Your task to perform on an android device: Search for pizza restaurants on Maps Image 0: 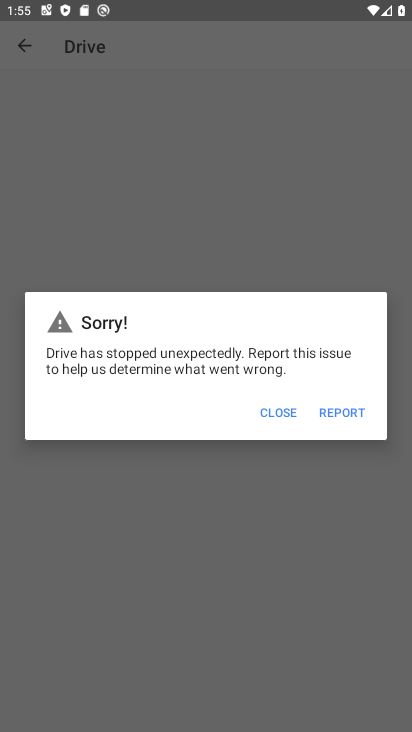
Step 0: press home button
Your task to perform on an android device: Search for pizza restaurants on Maps Image 1: 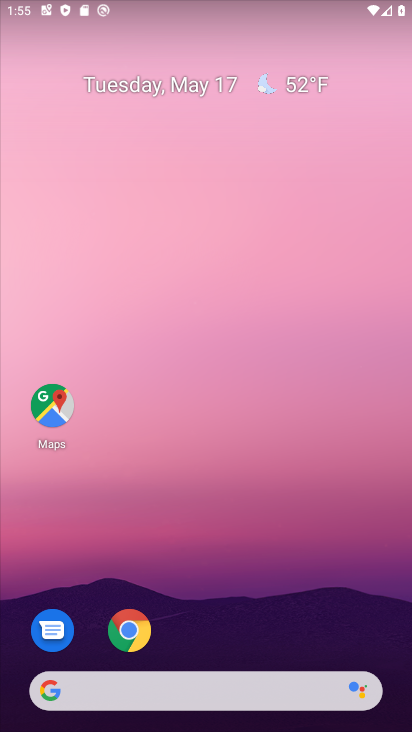
Step 1: click (37, 404)
Your task to perform on an android device: Search for pizza restaurants on Maps Image 2: 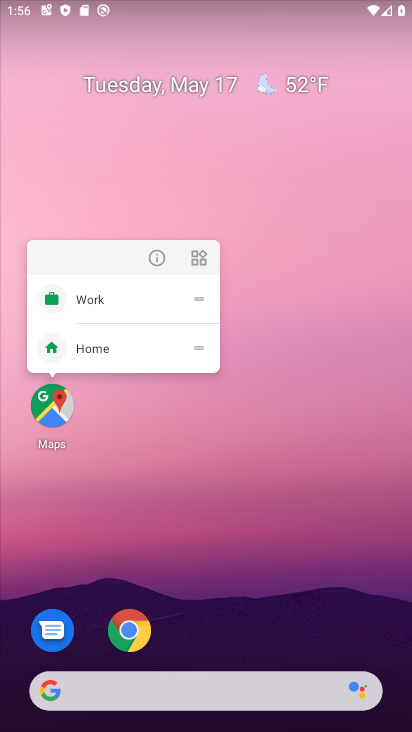
Step 2: click (36, 400)
Your task to perform on an android device: Search for pizza restaurants on Maps Image 3: 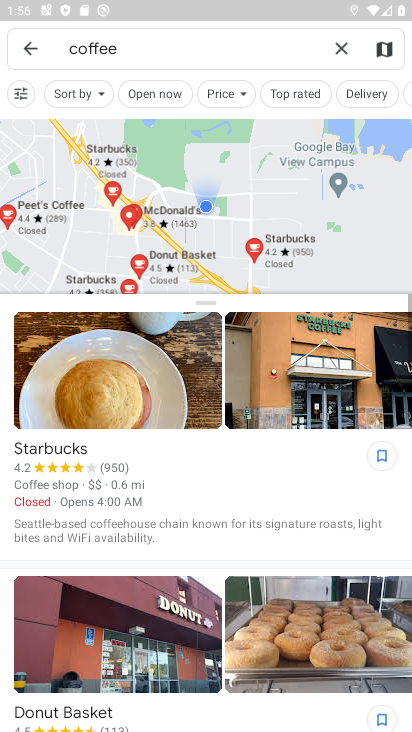
Step 3: click (336, 41)
Your task to perform on an android device: Search for pizza restaurants on Maps Image 4: 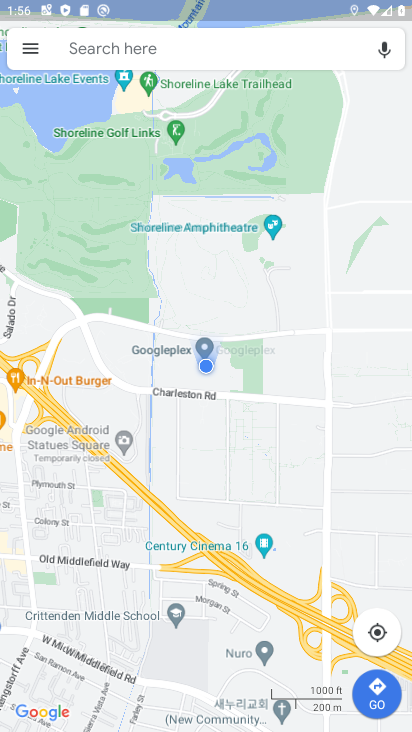
Step 4: click (181, 55)
Your task to perform on an android device: Search for pizza restaurants on Maps Image 5: 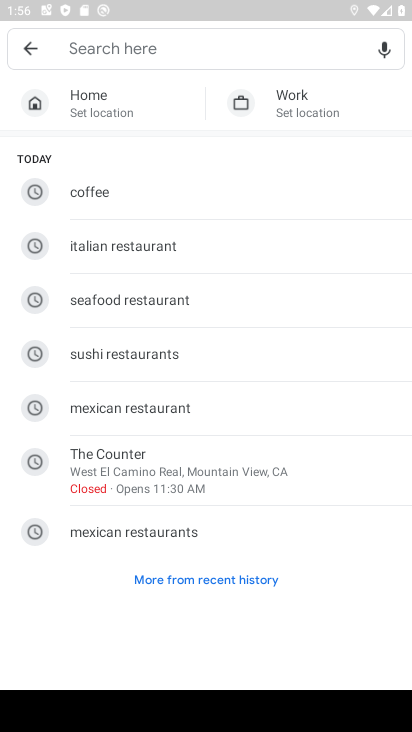
Step 5: type "pizza restar"
Your task to perform on an android device: Search for pizza restaurants on Maps Image 6: 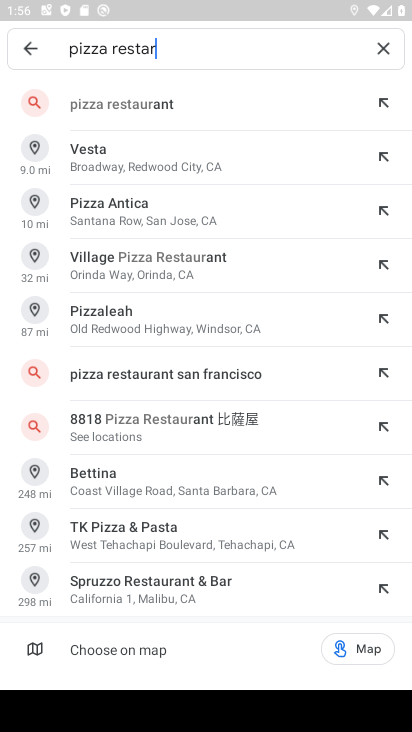
Step 6: click (160, 111)
Your task to perform on an android device: Search for pizza restaurants on Maps Image 7: 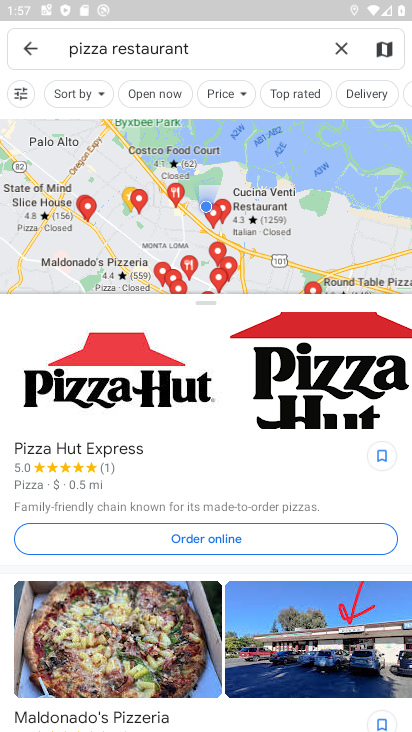
Step 7: task complete